Your task to perform on an android device: Open calendar and show me the third week of next month Image 0: 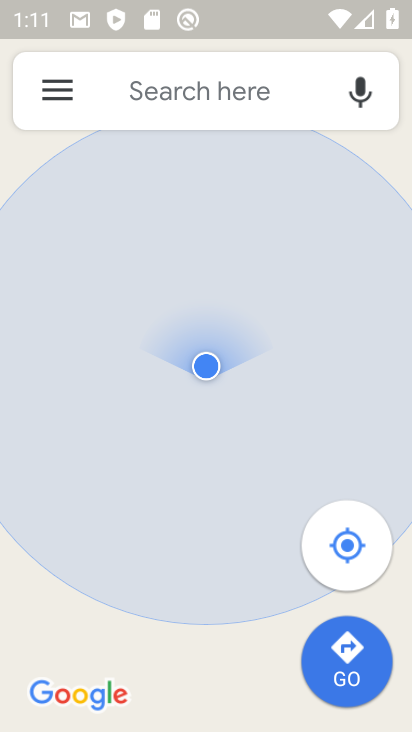
Step 0: press back button
Your task to perform on an android device: Open calendar and show me the third week of next month Image 1: 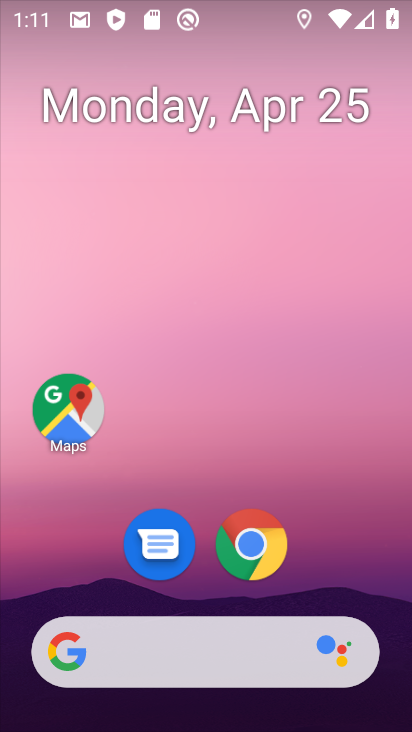
Step 1: drag from (177, 427) to (214, 78)
Your task to perform on an android device: Open calendar and show me the third week of next month Image 2: 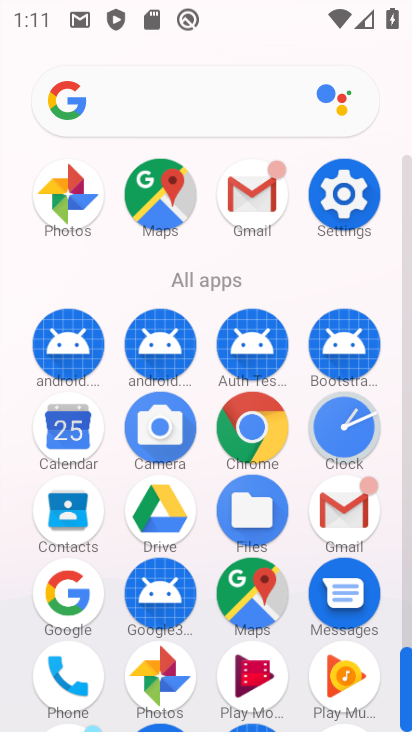
Step 2: click (74, 421)
Your task to perform on an android device: Open calendar and show me the third week of next month Image 3: 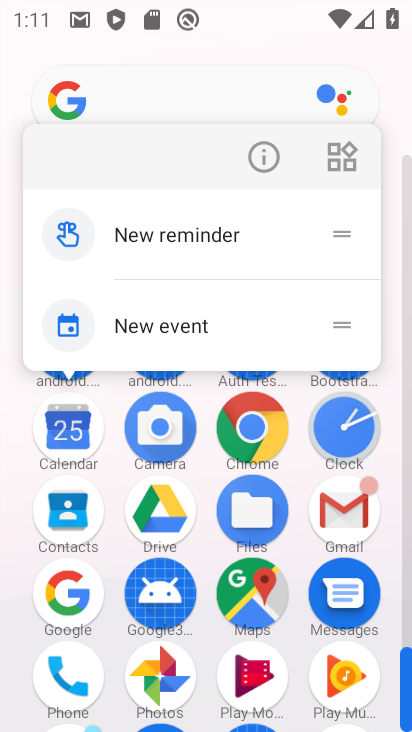
Step 3: click (67, 432)
Your task to perform on an android device: Open calendar and show me the third week of next month Image 4: 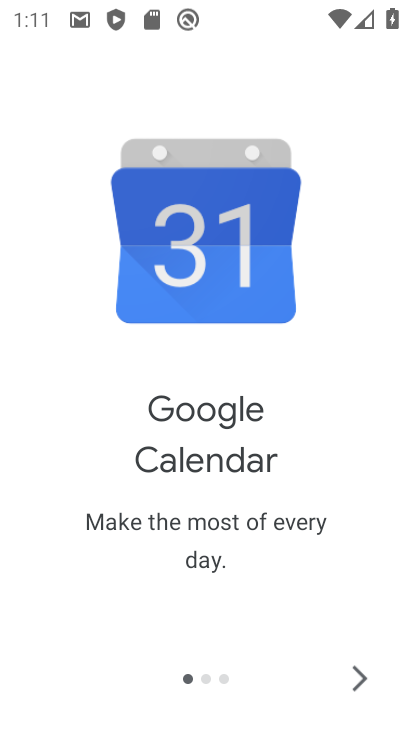
Step 4: click (349, 684)
Your task to perform on an android device: Open calendar and show me the third week of next month Image 5: 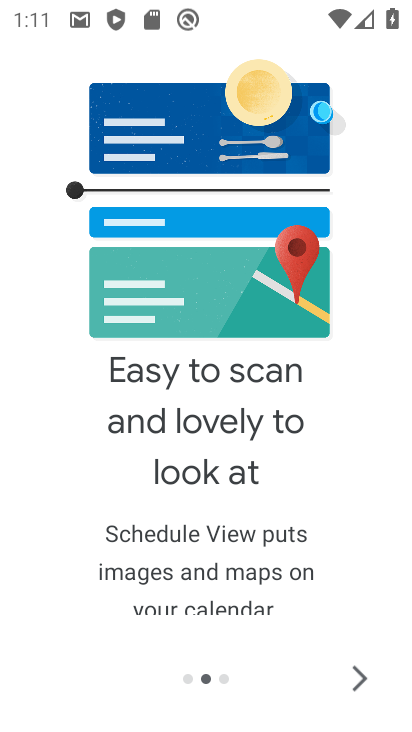
Step 5: click (352, 687)
Your task to perform on an android device: Open calendar and show me the third week of next month Image 6: 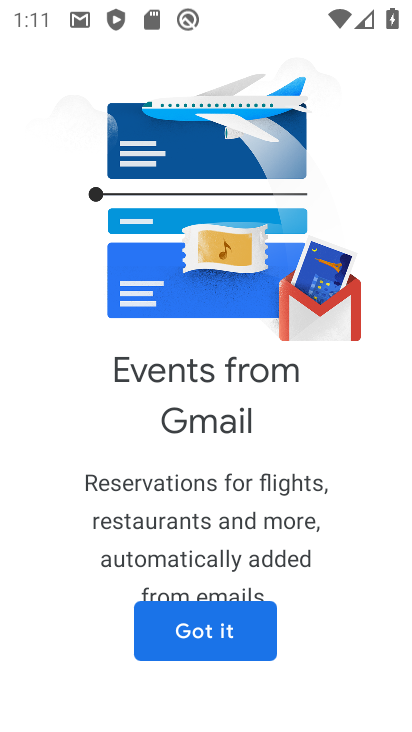
Step 6: click (253, 645)
Your task to perform on an android device: Open calendar and show me the third week of next month Image 7: 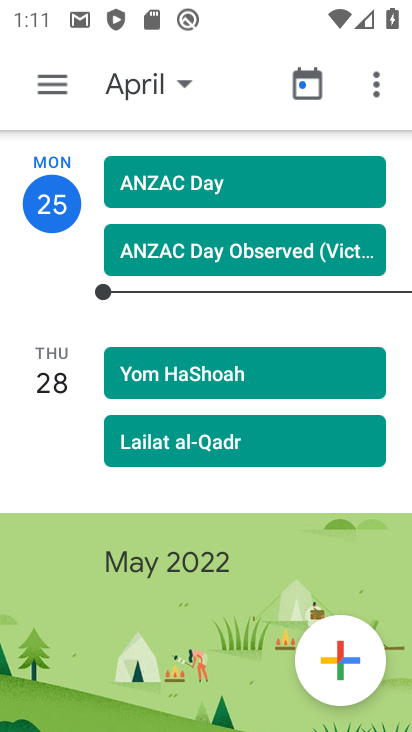
Step 7: click (130, 94)
Your task to perform on an android device: Open calendar and show me the third week of next month Image 8: 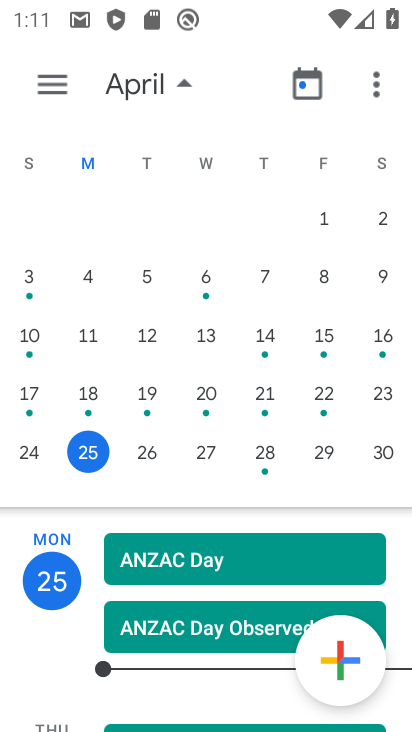
Step 8: drag from (359, 347) to (6, 347)
Your task to perform on an android device: Open calendar and show me the third week of next month Image 9: 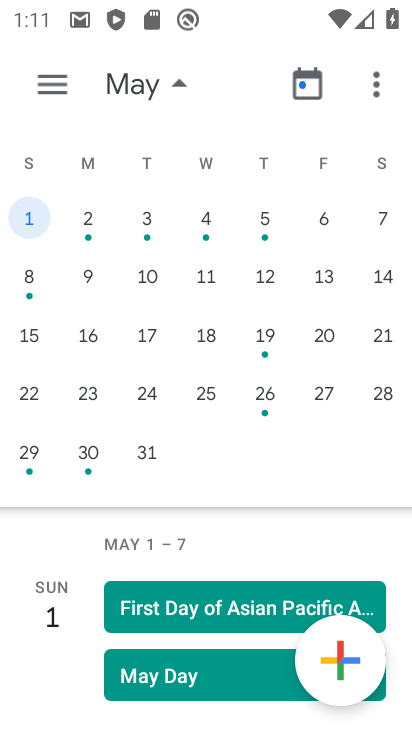
Step 9: click (32, 343)
Your task to perform on an android device: Open calendar and show me the third week of next month Image 10: 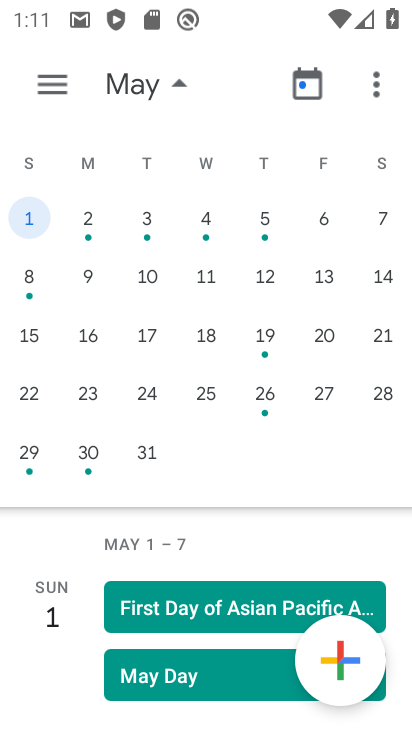
Step 10: click (28, 338)
Your task to perform on an android device: Open calendar and show me the third week of next month Image 11: 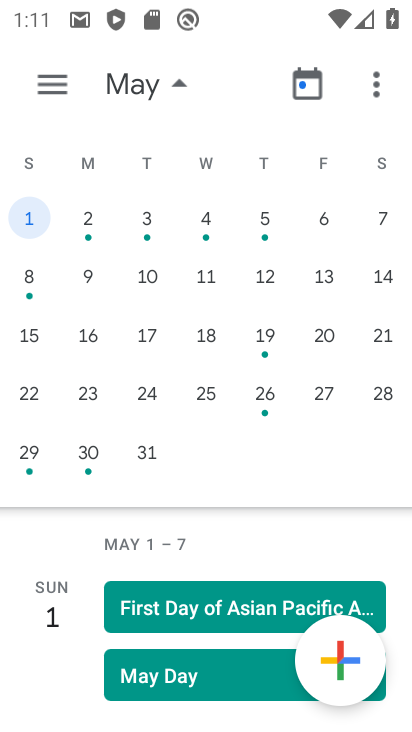
Step 11: click (29, 337)
Your task to perform on an android device: Open calendar and show me the third week of next month Image 12: 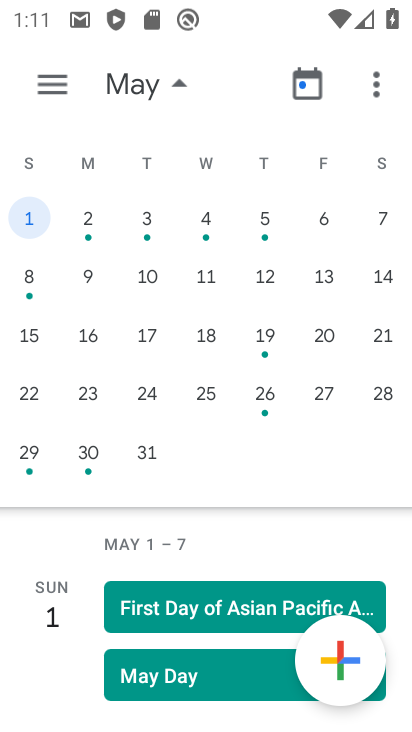
Step 12: click (32, 334)
Your task to perform on an android device: Open calendar and show me the third week of next month Image 13: 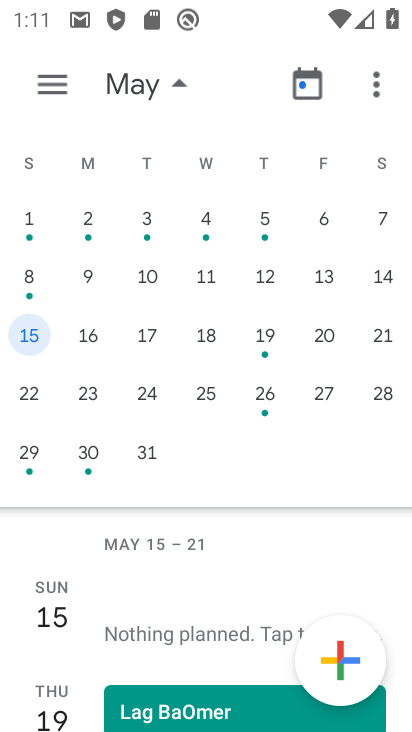
Step 13: click (46, 87)
Your task to perform on an android device: Open calendar and show me the third week of next month Image 14: 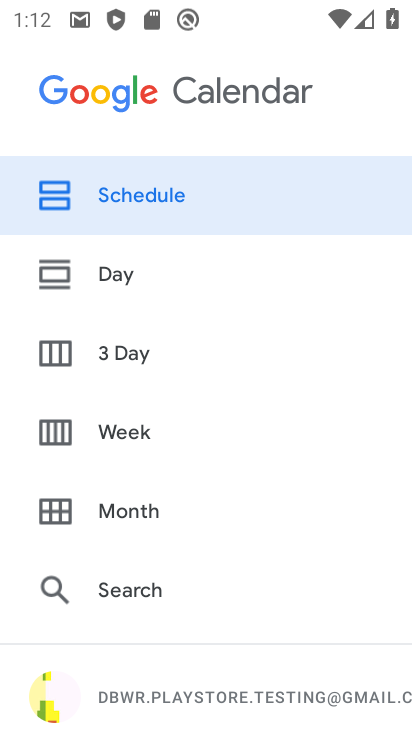
Step 14: click (141, 436)
Your task to perform on an android device: Open calendar and show me the third week of next month Image 15: 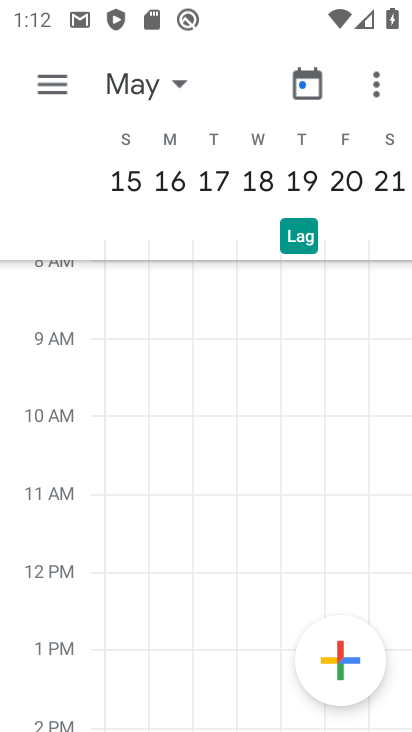
Step 15: task complete